Your task to perform on an android device: Go to settings Image 0: 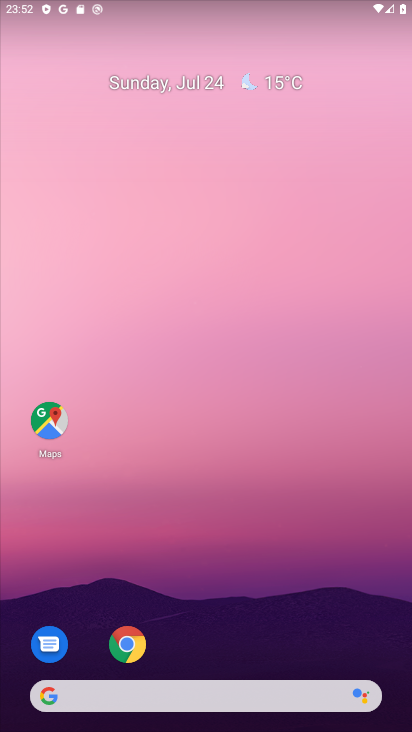
Step 0: drag from (206, 721) to (201, 436)
Your task to perform on an android device: Go to settings Image 1: 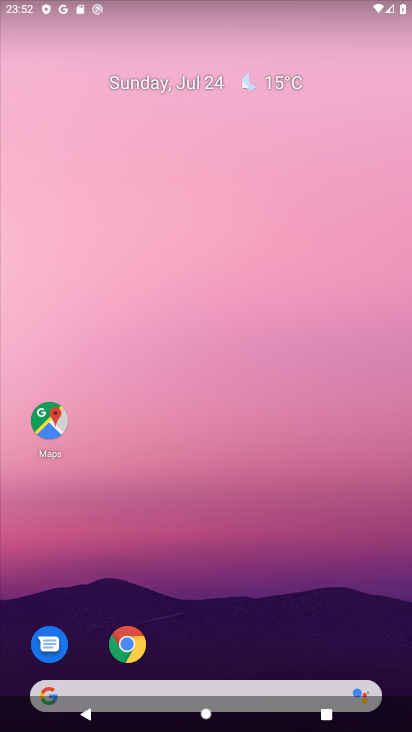
Step 1: drag from (241, 723) to (222, 143)
Your task to perform on an android device: Go to settings Image 2: 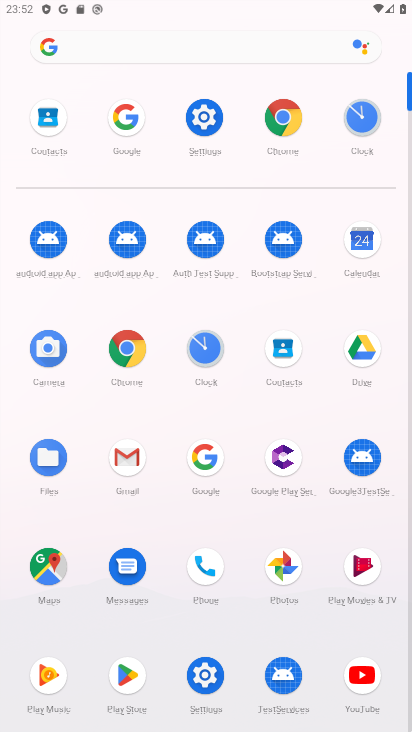
Step 2: click (196, 104)
Your task to perform on an android device: Go to settings Image 3: 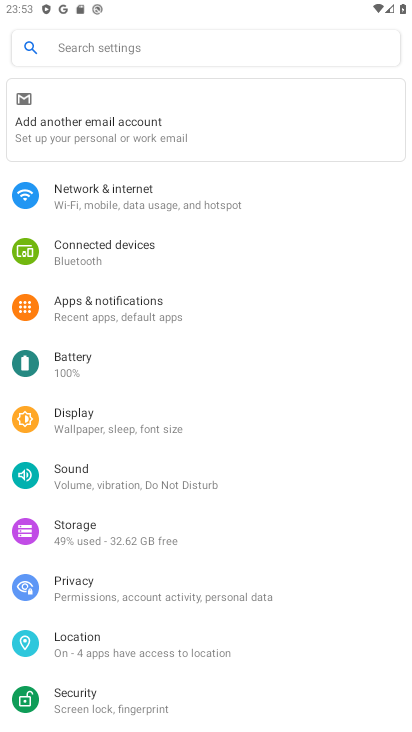
Step 3: task complete